Your task to perform on an android device: Do I have any events this weekend? Image 0: 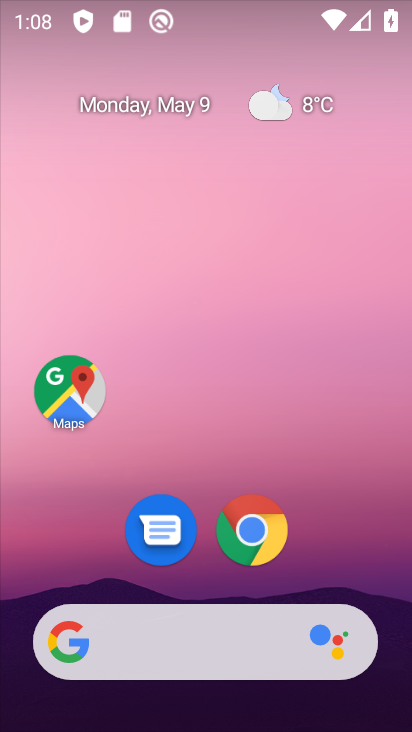
Step 0: drag from (210, 569) to (243, 260)
Your task to perform on an android device: Do I have any events this weekend? Image 1: 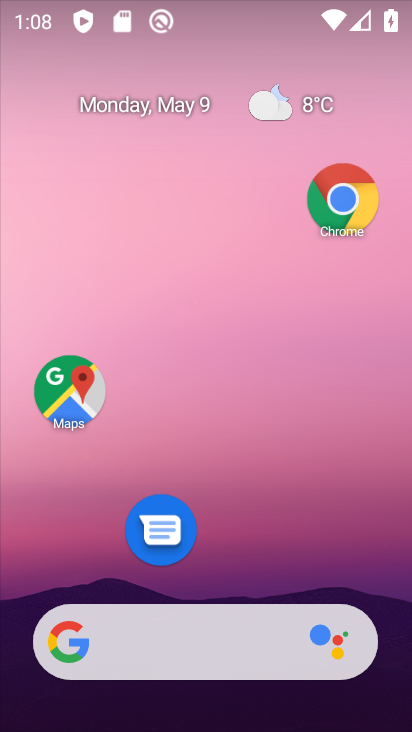
Step 1: drag from (272, 503) to (290, 94)
Your task to perform on an android device: Do I have any events this weekend? Image 2: 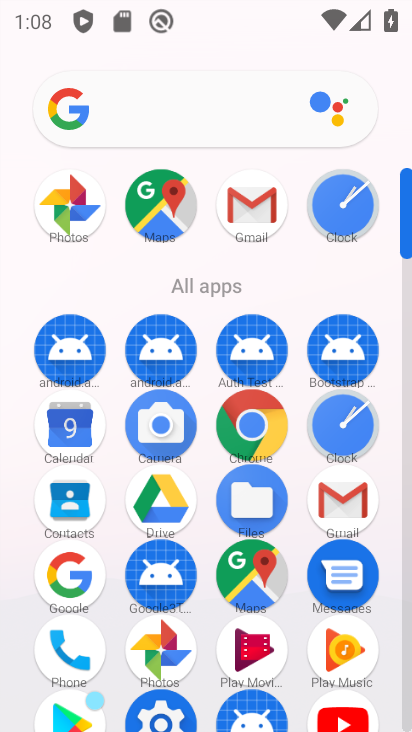
Step 2: click (70, 428)
Your task to perform on an android device: Do I have any events this weekend? Image 3: 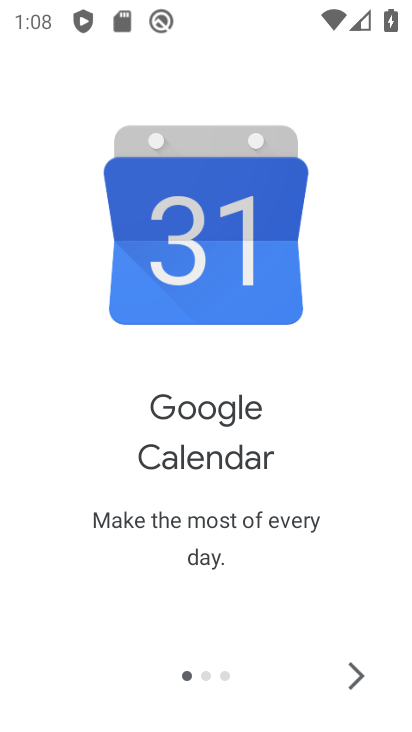
Step 3: click (354, 673)
Your task to perform on an android device: Do I have any events this weekend? Image 4: 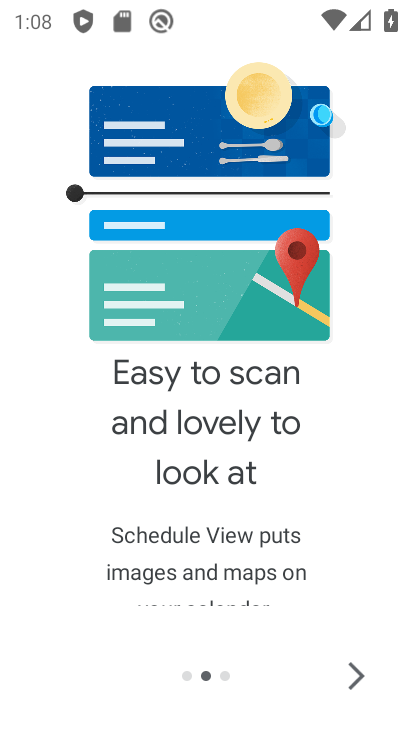
Step 4: click (354, 674)
Your task to perform on an android device: Do I have any events this weekend? Image 5: 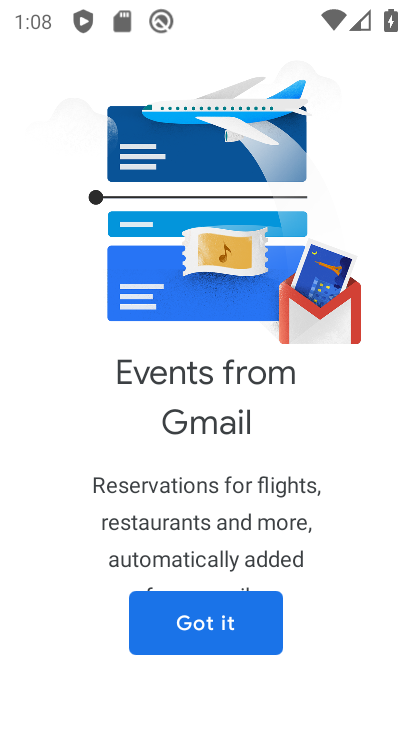
Step 5: click (219, 615)
Your task to perform on an android device: Do I have any events this weekend? Image 6: 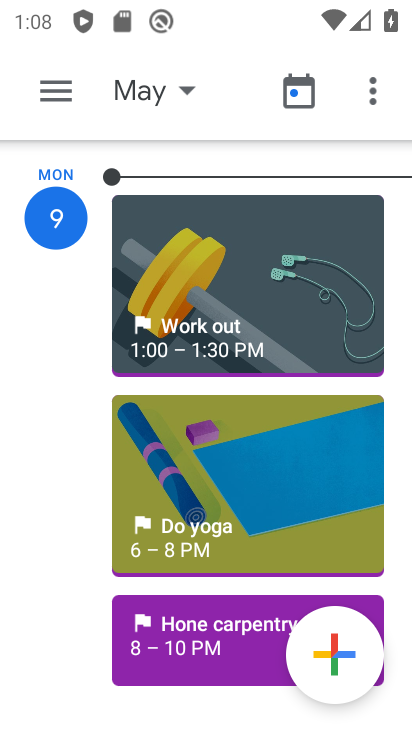
Step 6: click (178, 94)
Your task to perform on an android device: Do I have any events this weekend? Image 7: 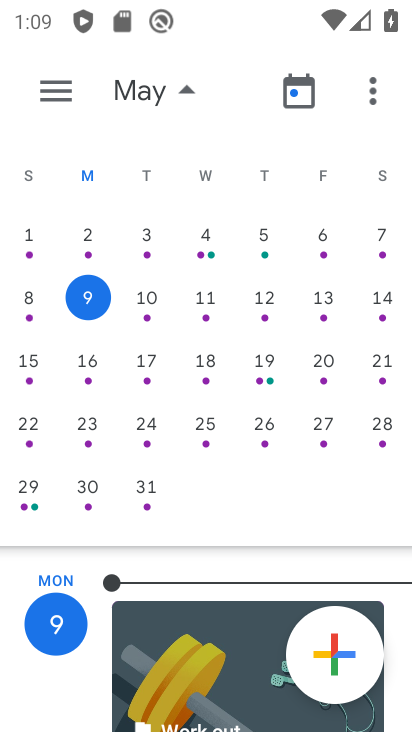
Step 7: click (92, 296)
Your task to perform on an android device: Do I have any events this weekend? Image 8: 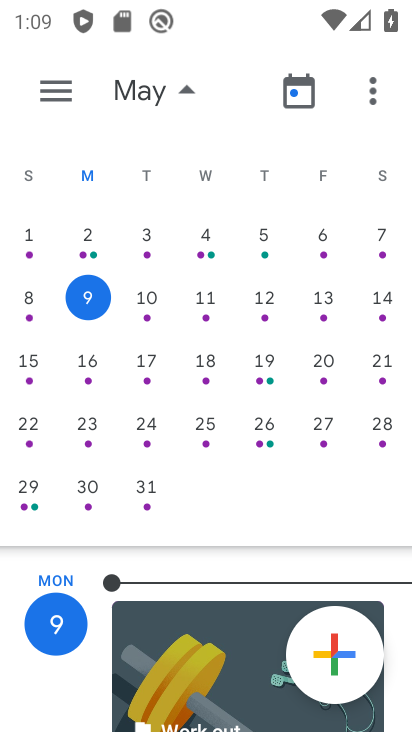
Step 8: task complete